Your task to perform on an android device: set default search engine in the chrome app Image 0: 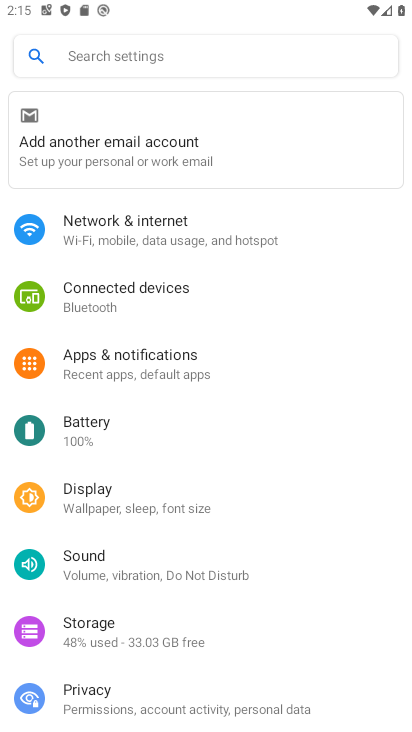
Step 0: press back button
Your task to perform on an android device: set default search engine in the chrome app Image 1: 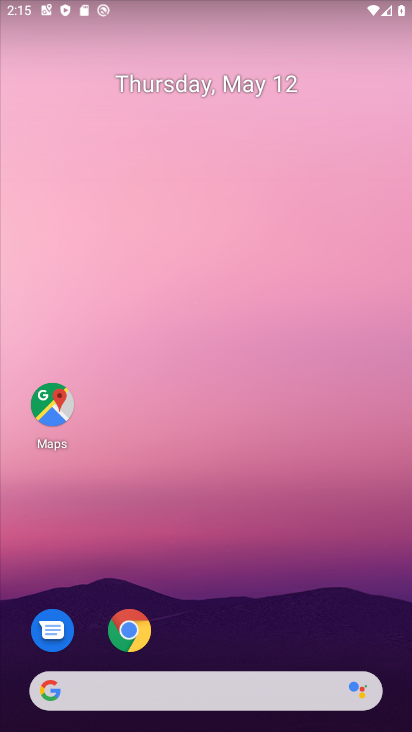
Step 1: click (129, 629)
Your task to perform on an android device: set default search engine in the chrome app Image 2: 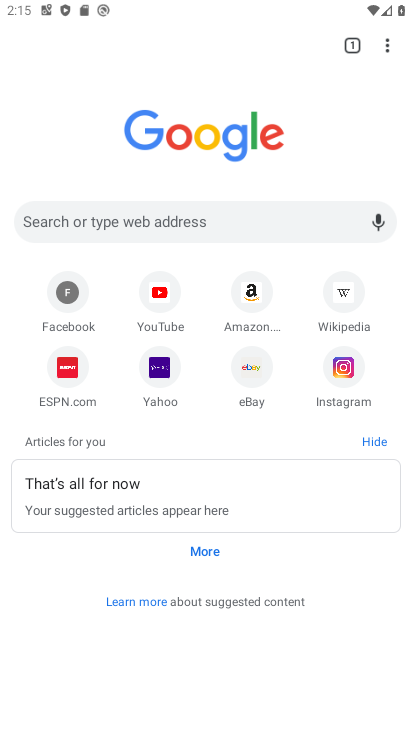
Step 2: click (387, 47)
Your task to perform on an android device: set default search engine in the chrome app Image 3: 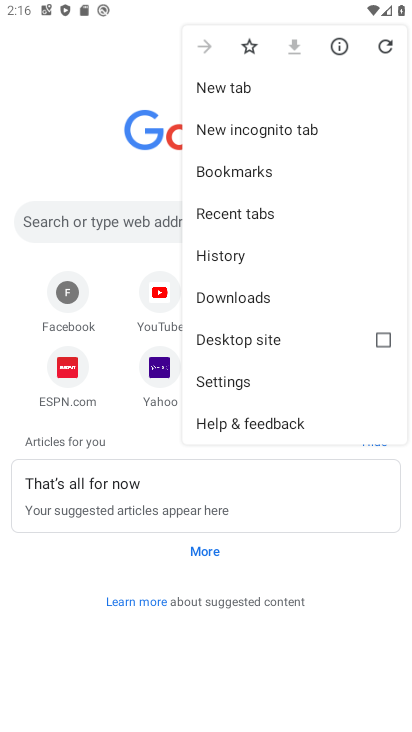
Step 3: click (228, 380)
Your task to perform on an android device: set default search engine in the chrome app Image 4: 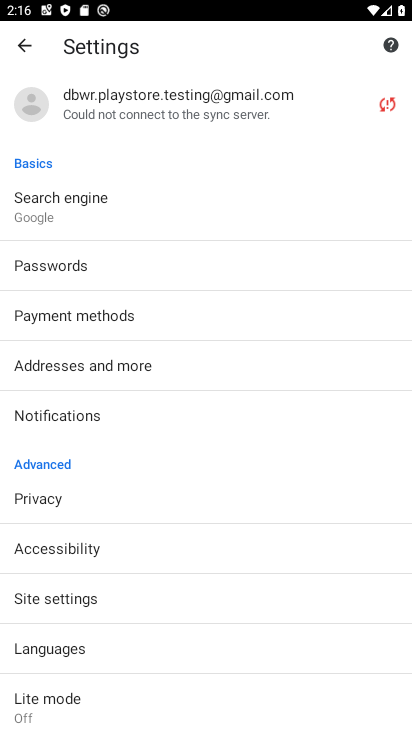
Step 4: click (92, 206)
Your task to perform on an android device: set default search engine in the chrome app Image 5: 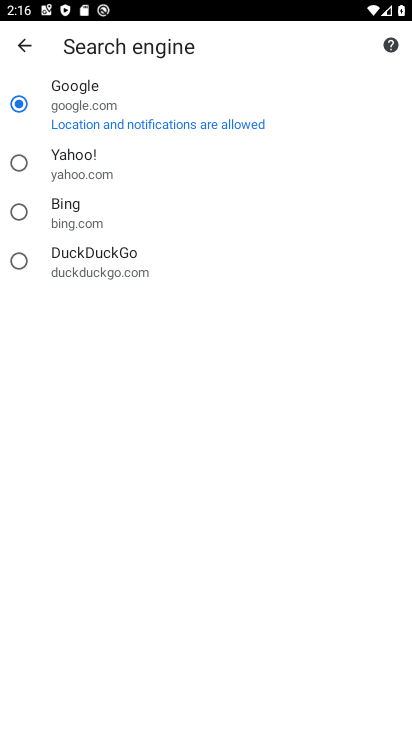
Step 5: click (17, 155)
Your task to perform on an android device: set default search engine in the chrome app Image 6: 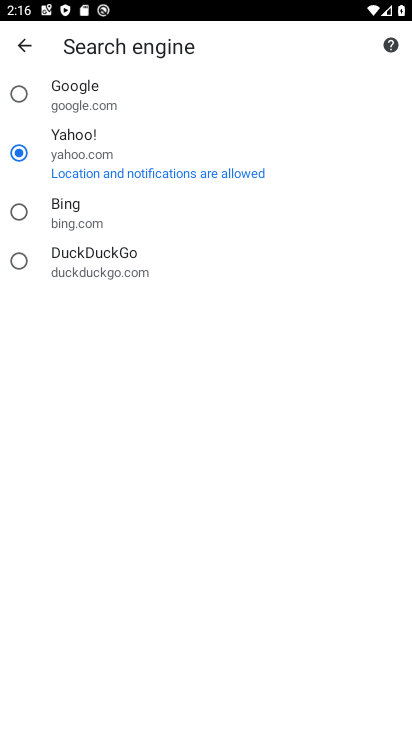
Step 6: task complete